Your task to perform on an android device: Go to calendar. Show me events next week Image 0: 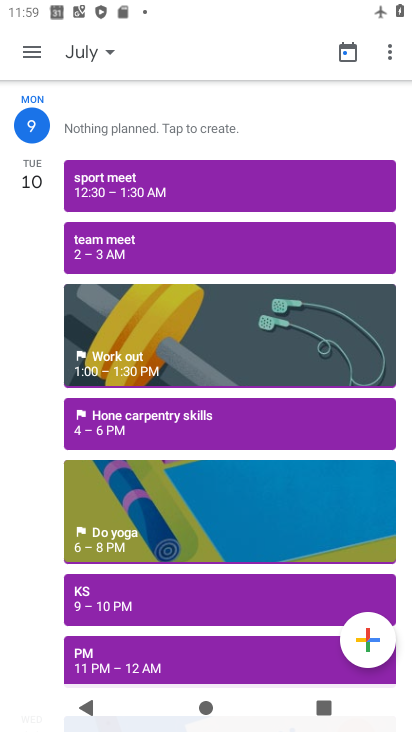
Step 0: press home button
Your task to perform on an android device: Go to calendar. Show me events next week Image 1: 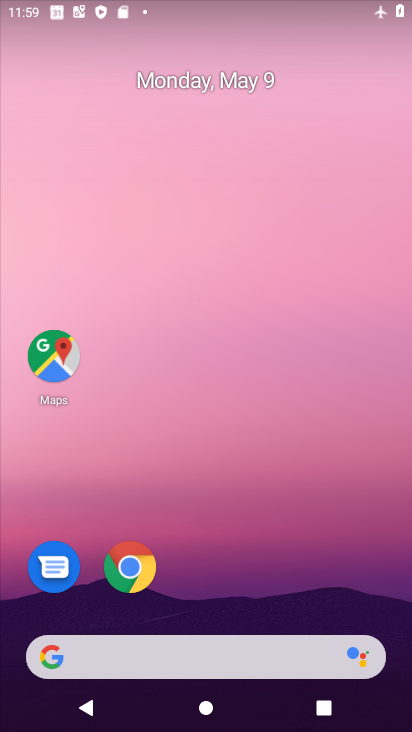
Step 1: drag from (364, 603) to (326, 72)
Your task to perform on an android device: Go to calendar. Show me events next week Image 2: 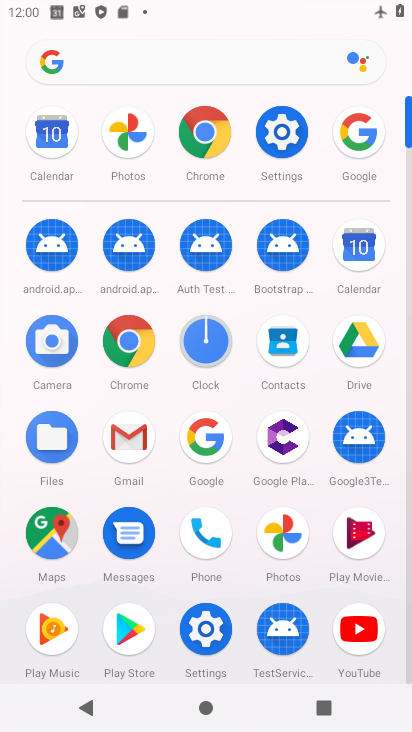
Step 2: click (367, 263)
Your task to perform on an android device: Go to calendar. Show me events next week Image 3: 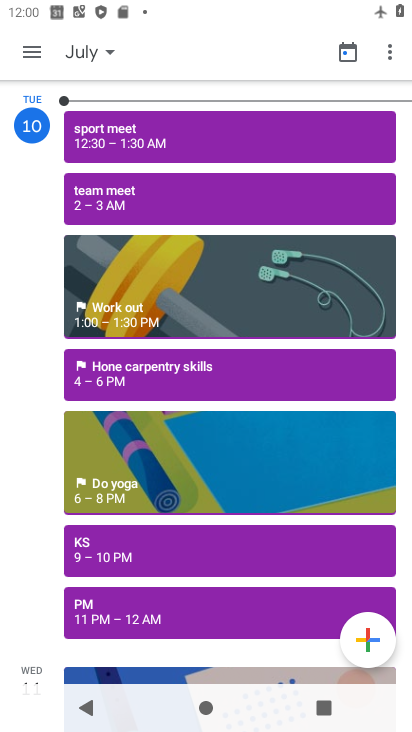
Step 3: click (84, 62)
Your task to perform on an android device: Go to calendar. Show me events next week Image 4: 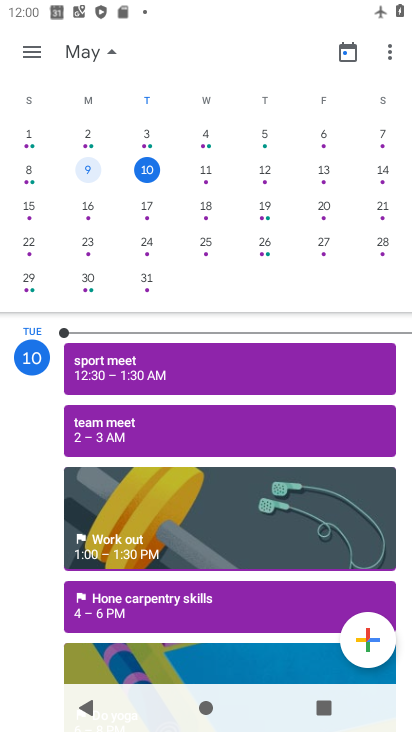
Step 4: click (207, 178)
Your task to perform on an android device: Go to calendar. Show me events next week Image 5: 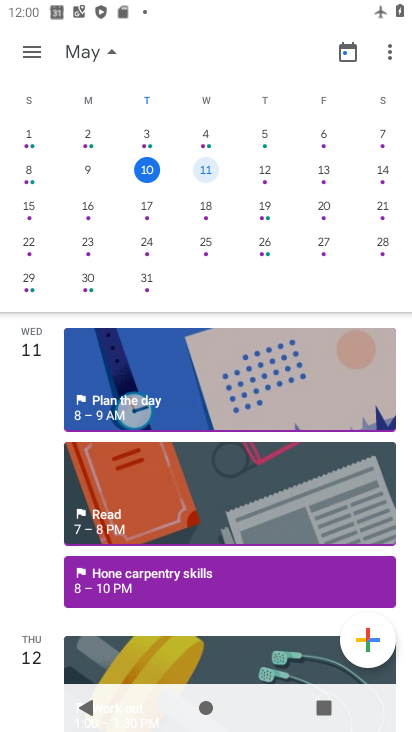
Step 5: task complete